Your task to perform on an android device: See recent photos Image 0: 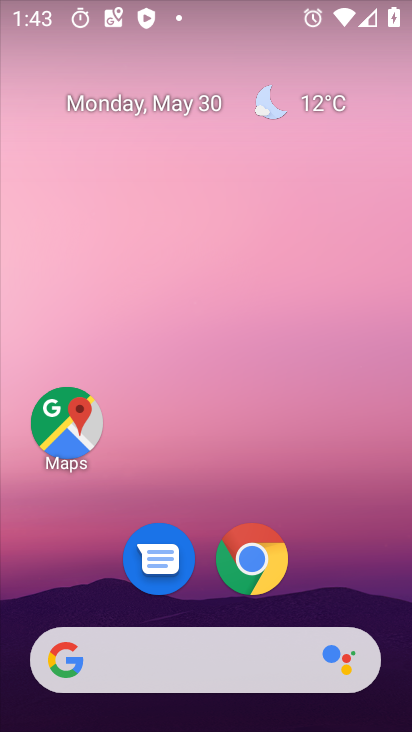
Step 0: drag from (217, 514) to (282, 140)
Your task to perform on an android device: See recent photos Image 1: 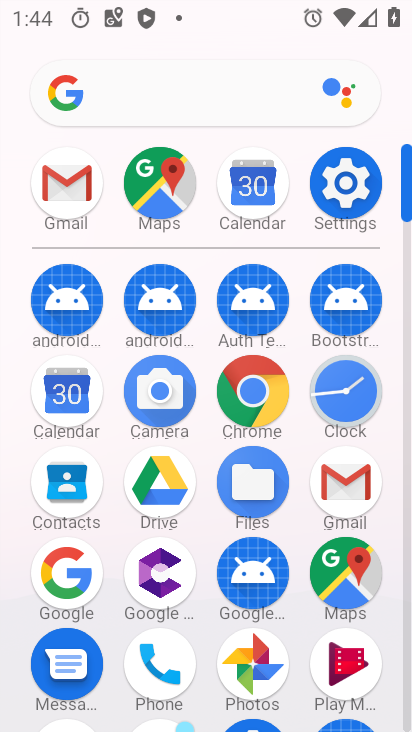
Step 1: click (255, 660)
Your task to perform on an android device: See recent photos Image 2: 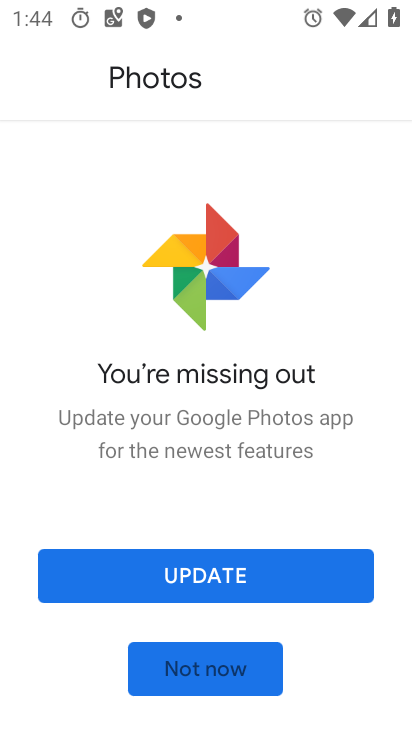
Step 2: click (159, 671)
Your task to perform on an android device: See recent photos Image 3: 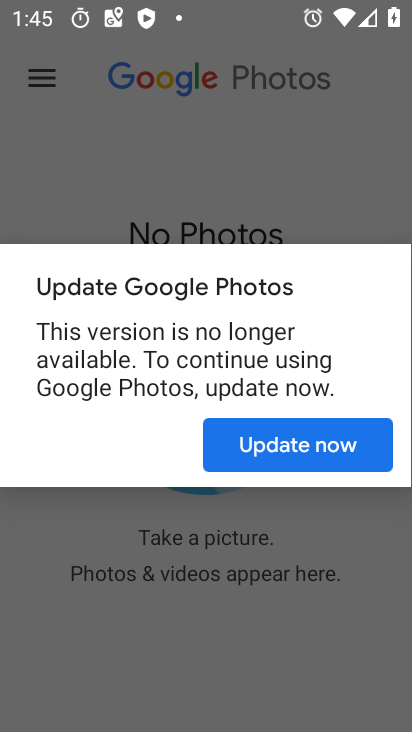
Step 3: click (360, 443)
Your task to perform on an android device: See recent photos Image 4: 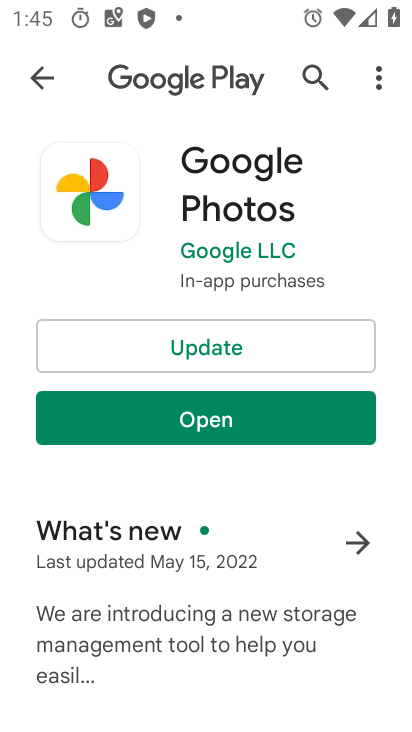
Step 4: click (196, 420)
Your task to perform on an android device: See recent photos Image 5: 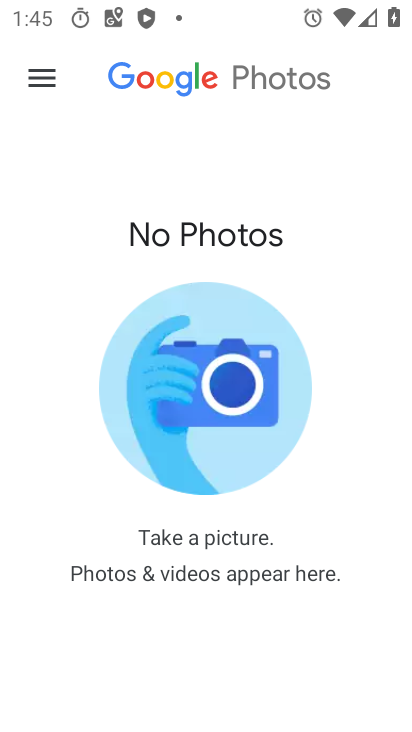
Step 5: task complete